Your task to perform on an android device: Show me recent news Image 0: 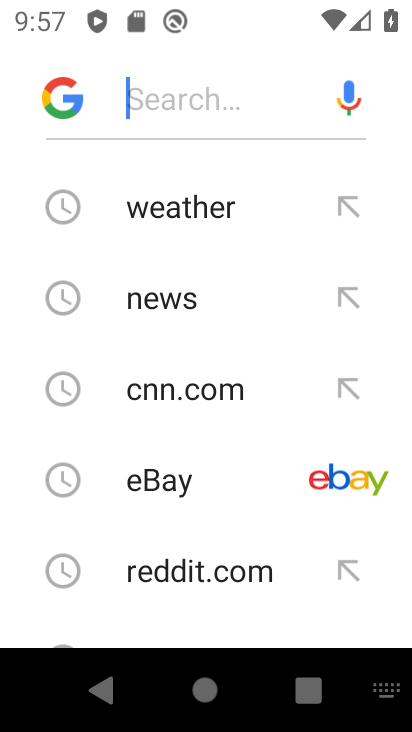
Step 0: press home button
Your task to perform on an android device: Show me recent news Image 1: 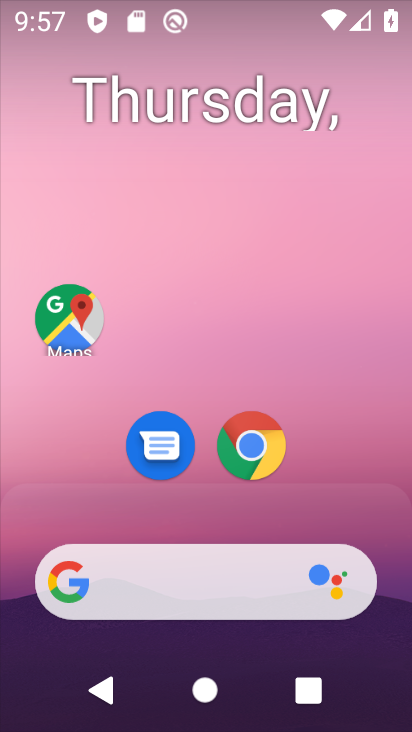
Step 1: click (170, 572)
Your task to perform on an android device: Show me recent news Image 2: 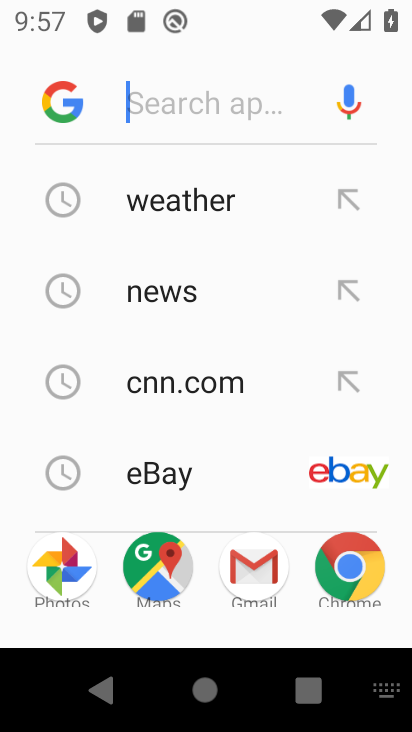
Step 2: type "recent news"
Your task to perform on an android device: Show me recent news Image 3: 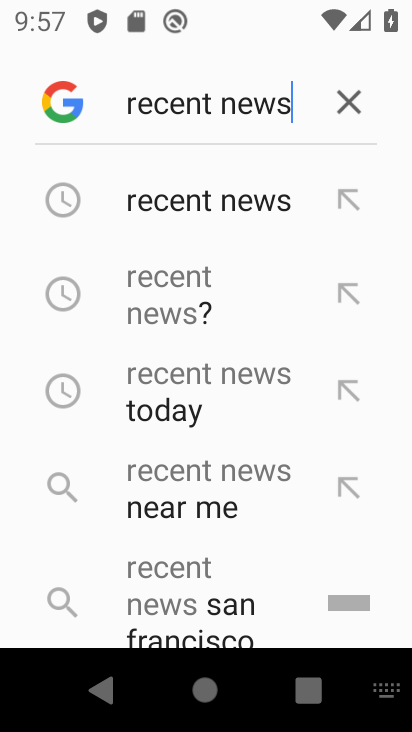
Step 3: click (285, 209)
Your task to perform on an android device: Show me recent news Image 4: 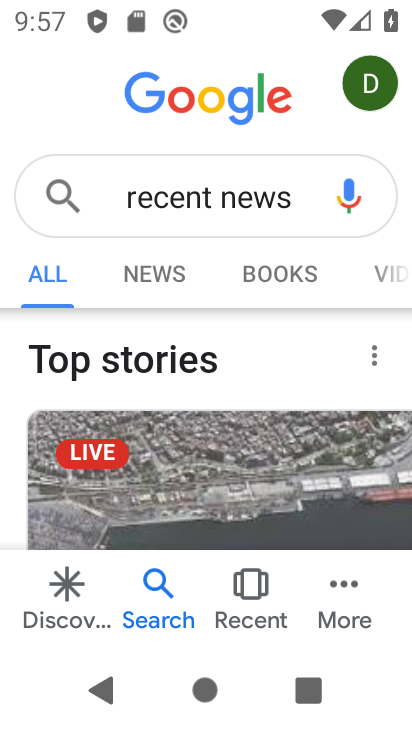
Step 4: task complete